Your task to perform on an android device: Open Yahoo.com Image 0: 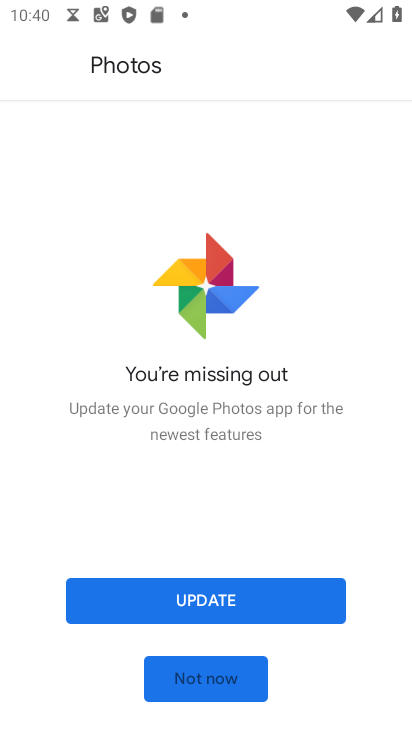
Step 0: press home button
Your task to perform on an android device: Open Yahoo.com Image 1: 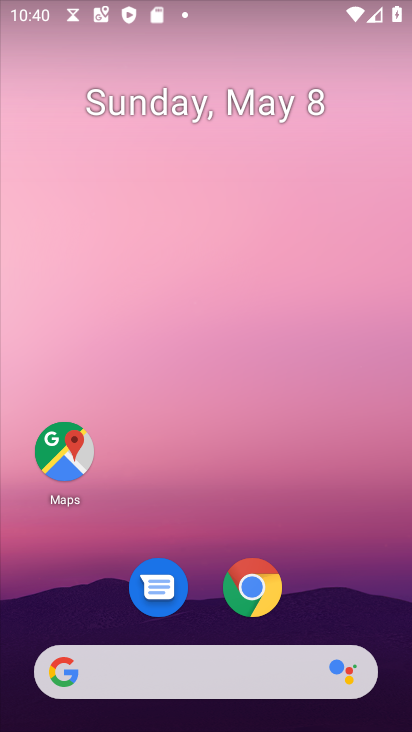
Step 1: click (242, 588)
Your task to perform on an android device: Open Yahoo.com Image 2: 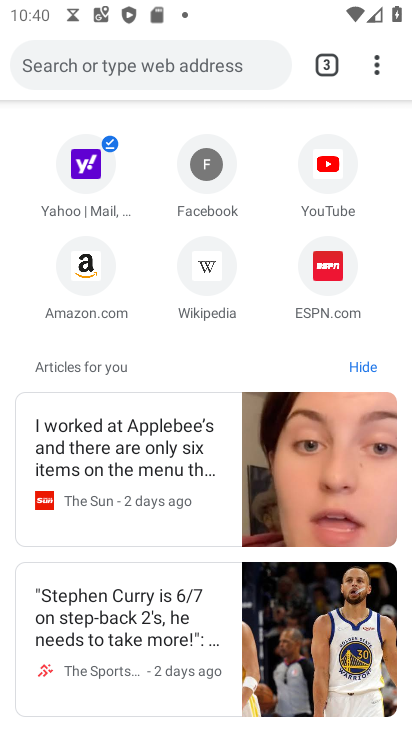
Step 2: click (98, 183)
Your task to perform on an android device: Open Yahoo.com Image 3: 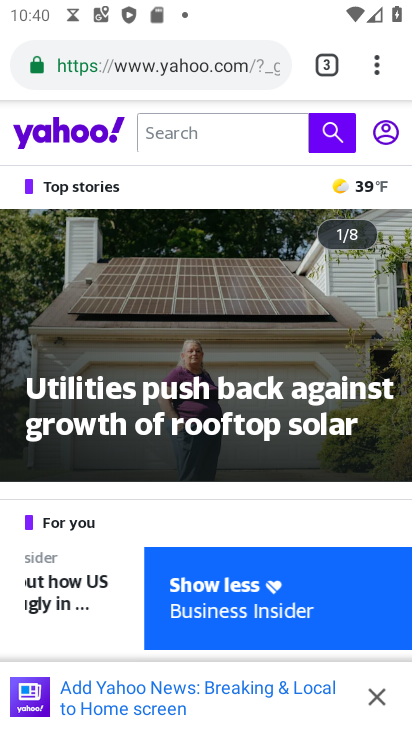
Step 3: click (326, 71)
Your task to perform on an android device: Open Yahoo.com Image 4: 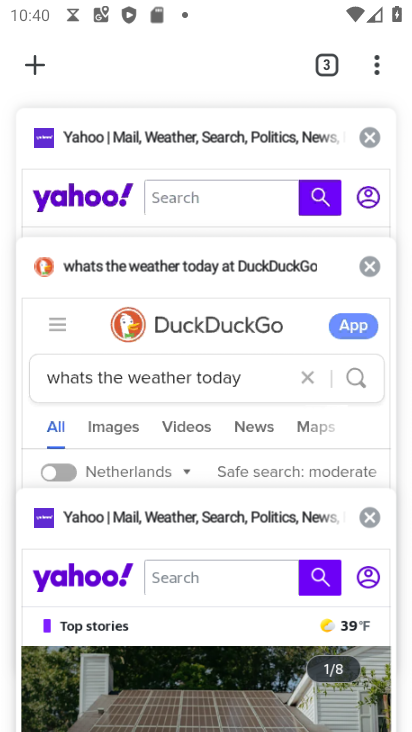
Step 4: click (182, 534)
Your task to perform on an android device: Open Yahoo.com Image 5: 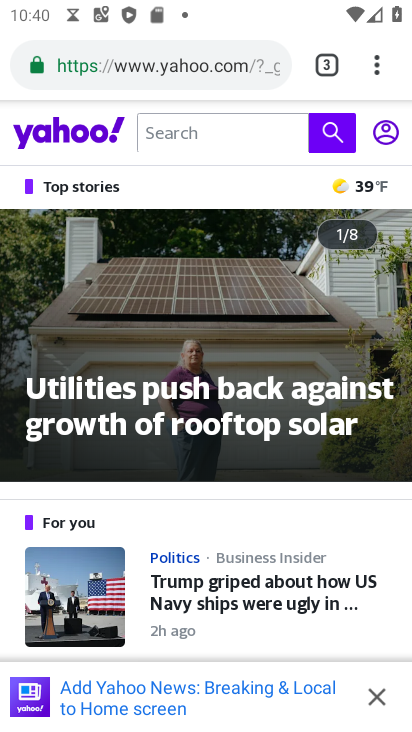
Step 5: task complete